Your task to perform on an android device: turn on wifi Image 0: 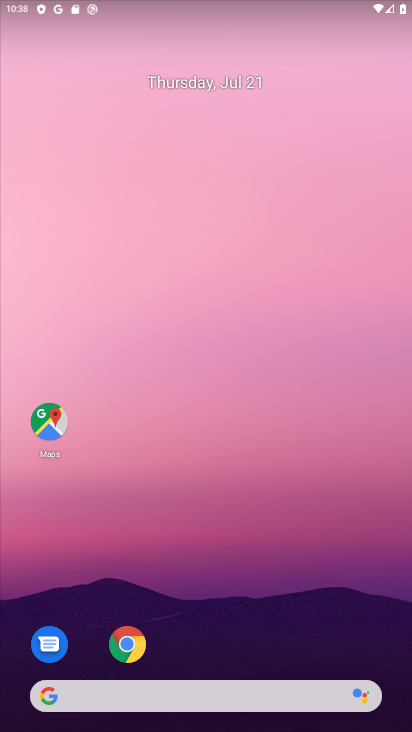
Step 0: drag from (247, 655) to (185, 44)
Your task to perform on an android device: turn on wifi Image 1: 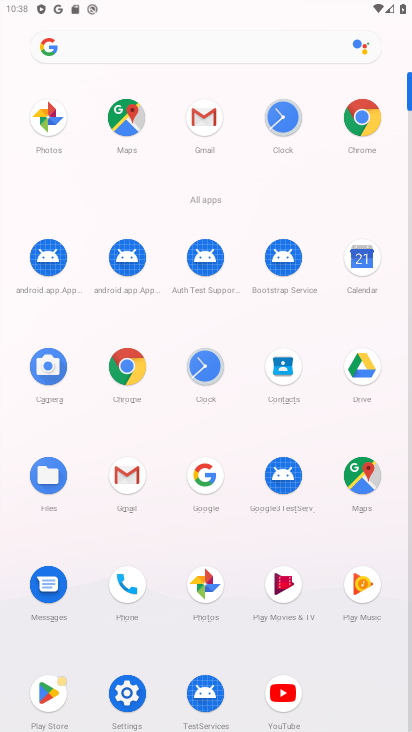
Step 1: click (129, 696)
Your task to perform on an android device: turn on wifi Image 2: 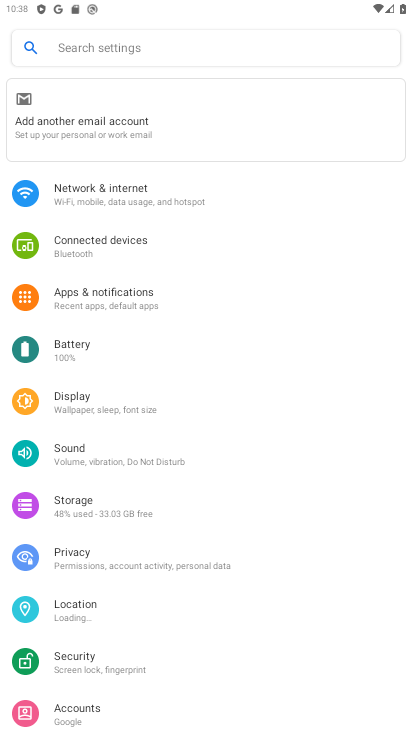
Step 2: click (170, 211)
Your task to perform on an android device: turn on wifi Image 3: 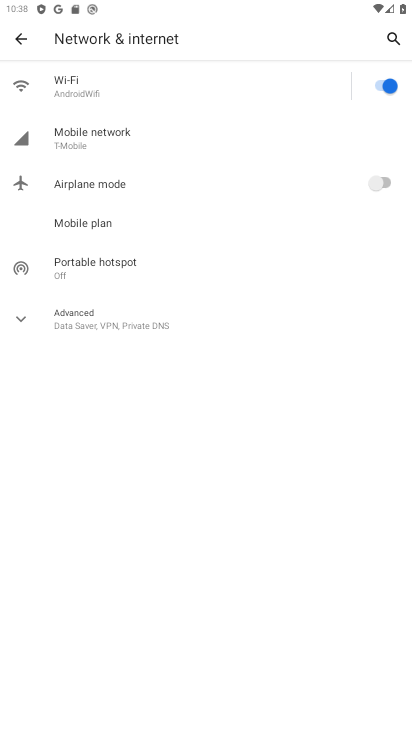
Step 3: task complete